Your task to perform on an android device: Clear all items from cart on costco.com. Image 0: 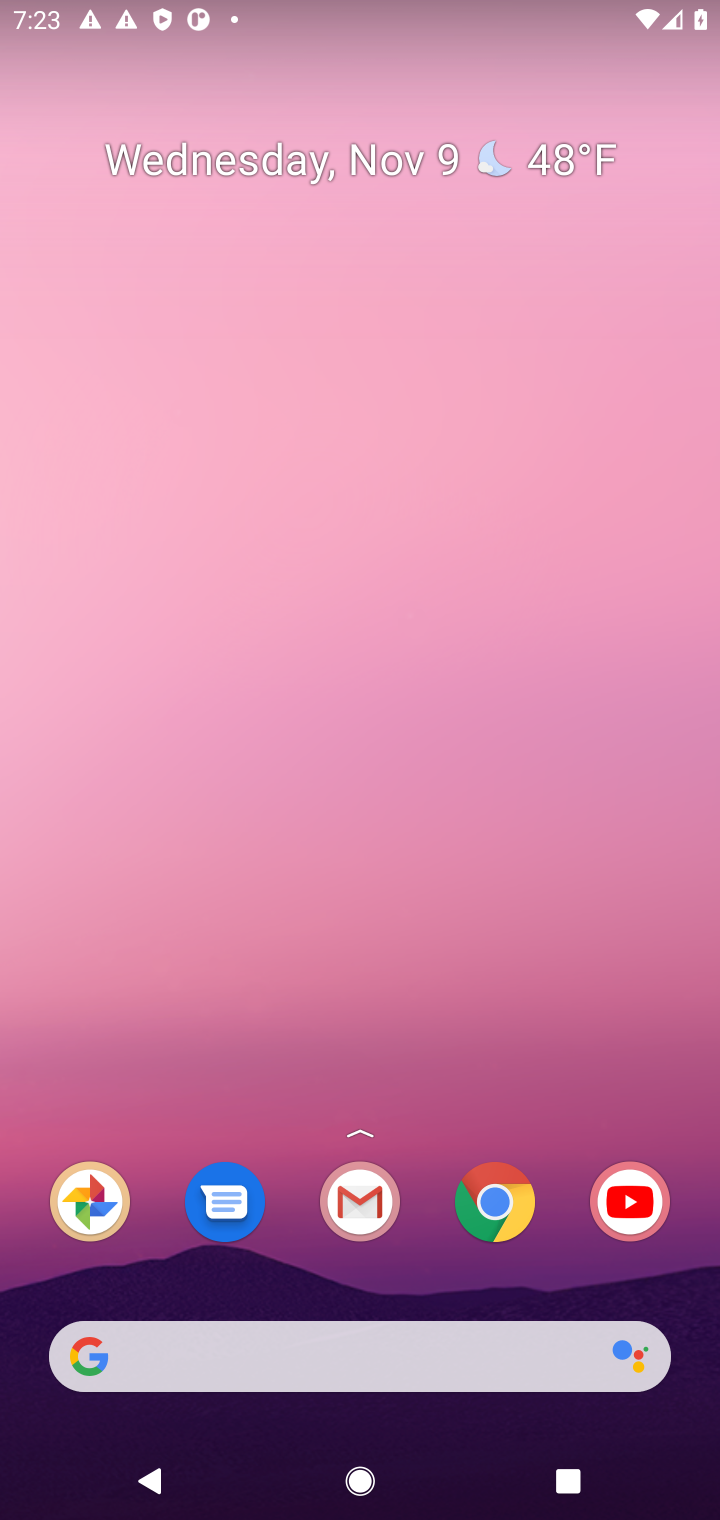
Step 0: click (508, 1209)
Your task to perform on an android device: Clear all items from cart on costco.com. Image 1: 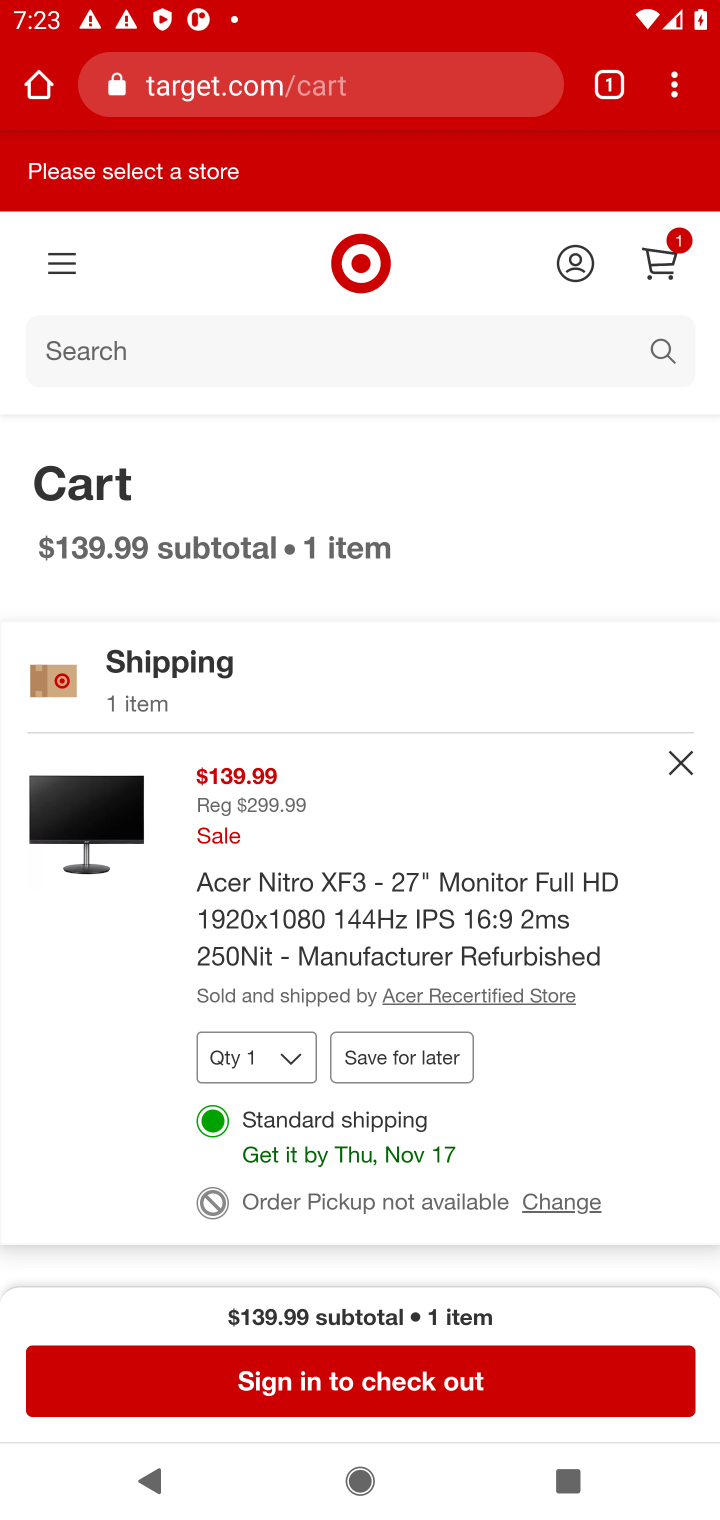
Step 1: click (426, 91)
Your task to perform on an android device: Clear all items from cart on costco.com. Image 2: 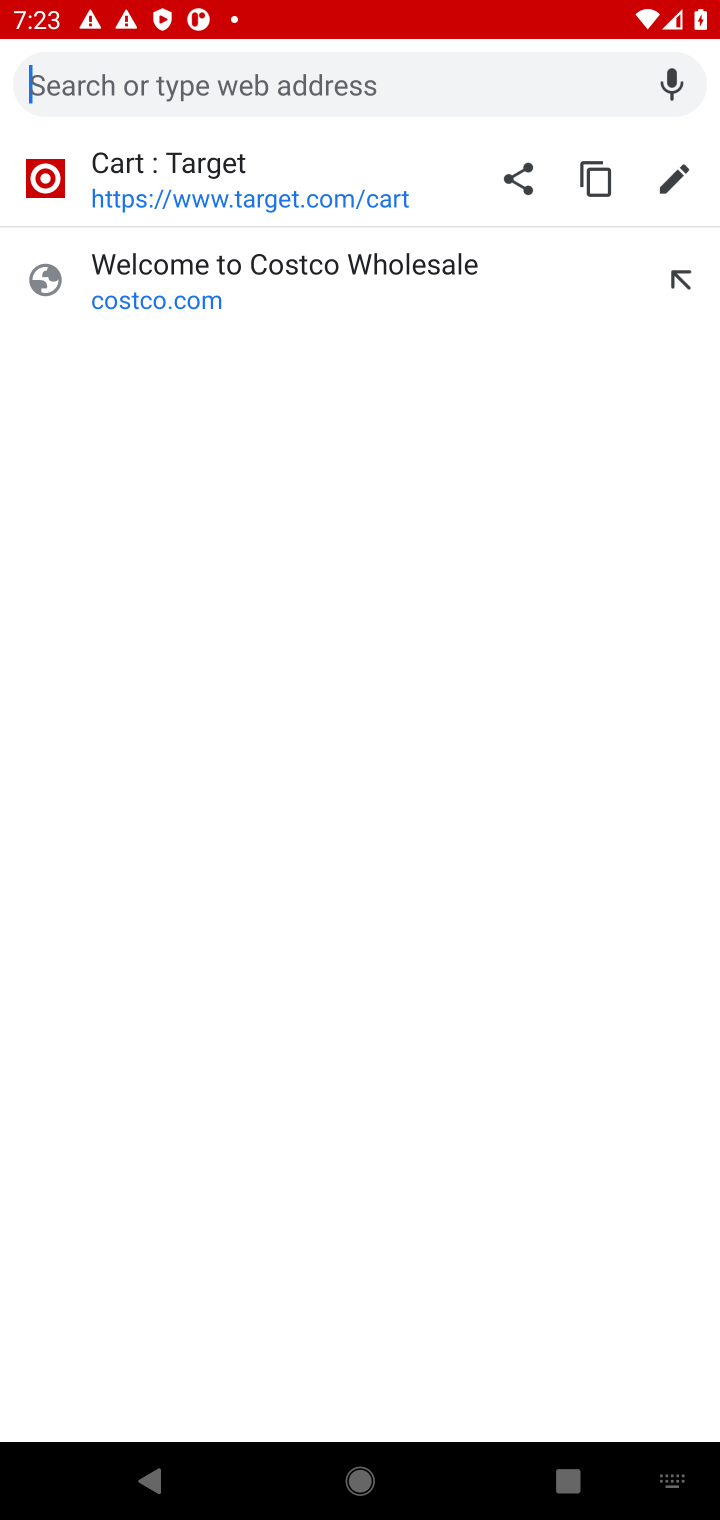
Step 2: type " costco.com"
Your task to perform on an android device: Clear all items from cart on costco.com. Image 3: 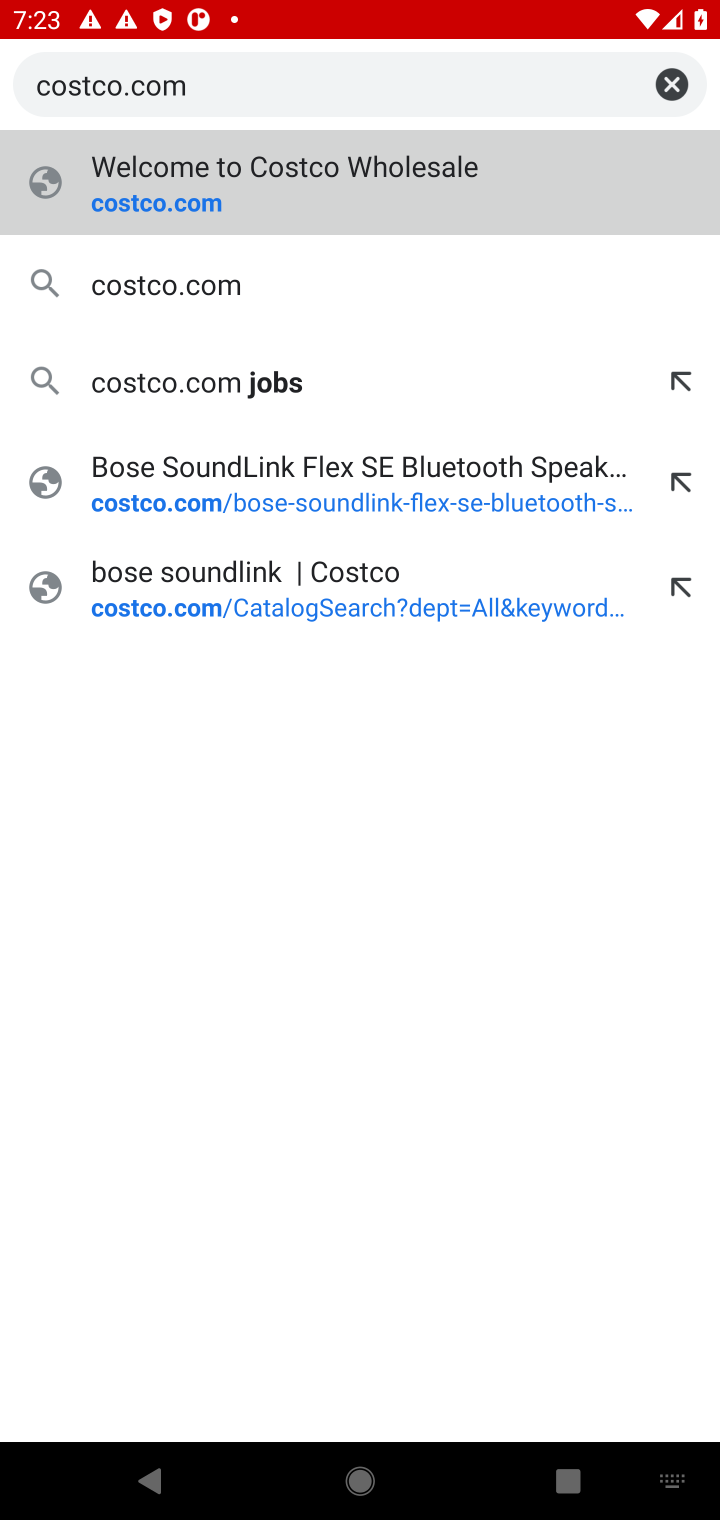
Step 3: press enter
Your task to perform on an android device: Clear all items from cart on costco.com. Image 4: 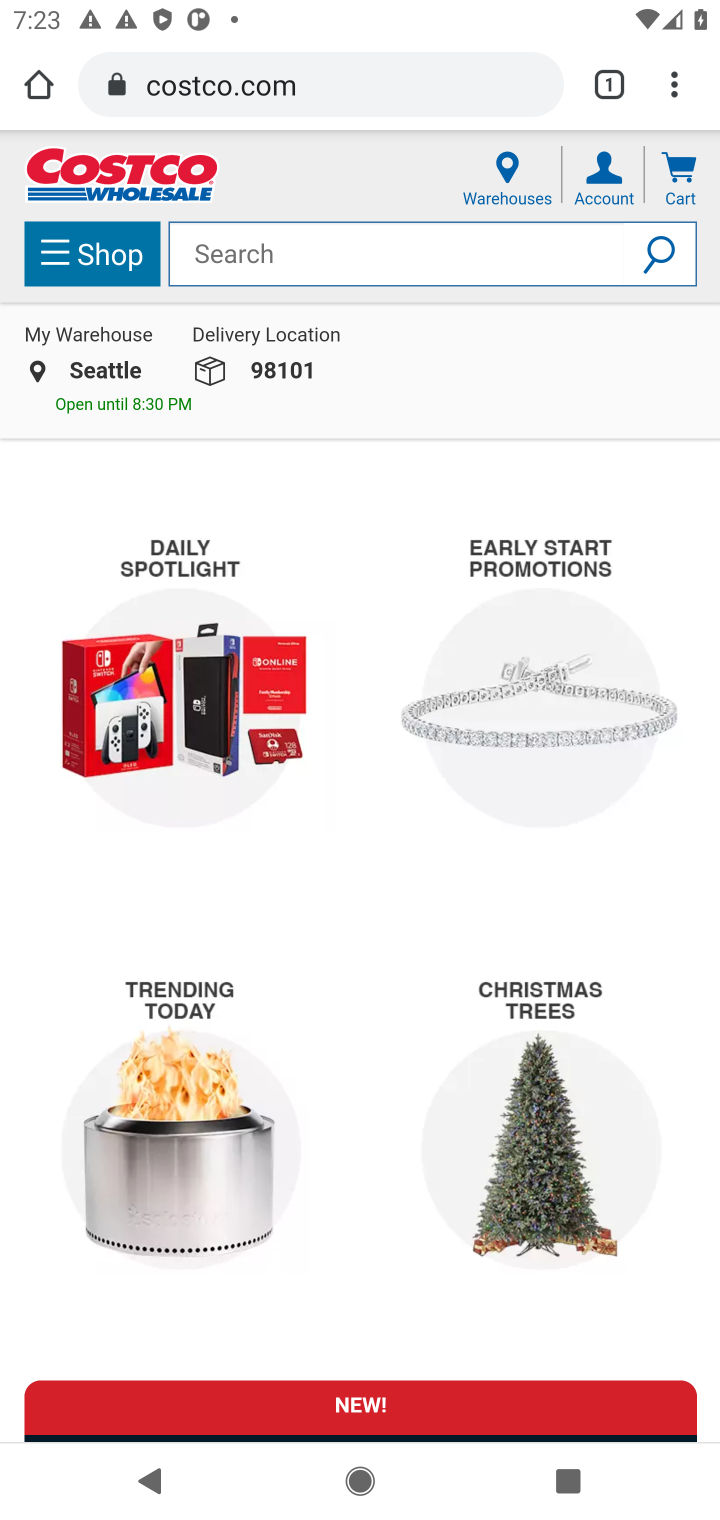
Step 4: click (689, 156)
Your task to perform on an android device: Clear all items from cart on costco.com. Image 5: 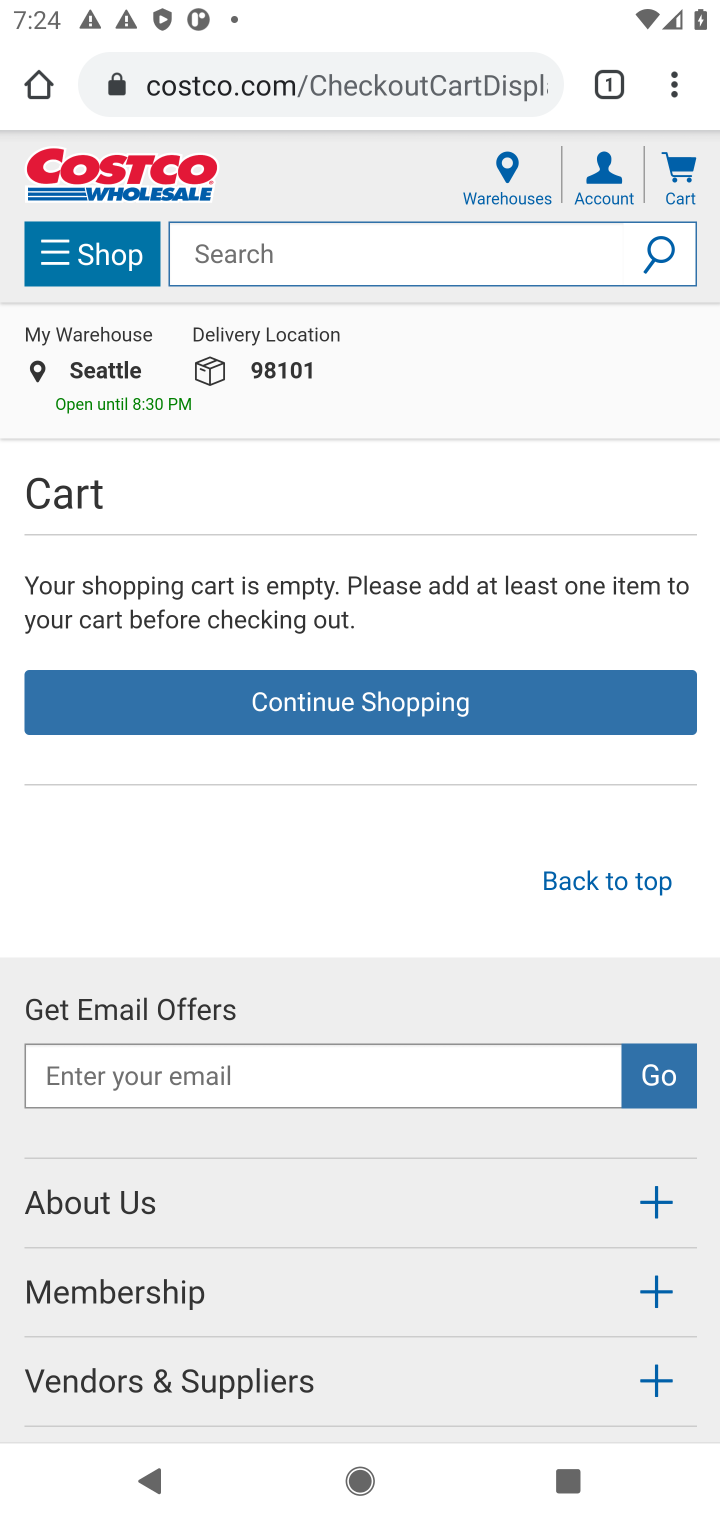
Step 5: click (675, 161)
Your task to perform on an android device: Clear all items from cart on costco.com. Image 6: 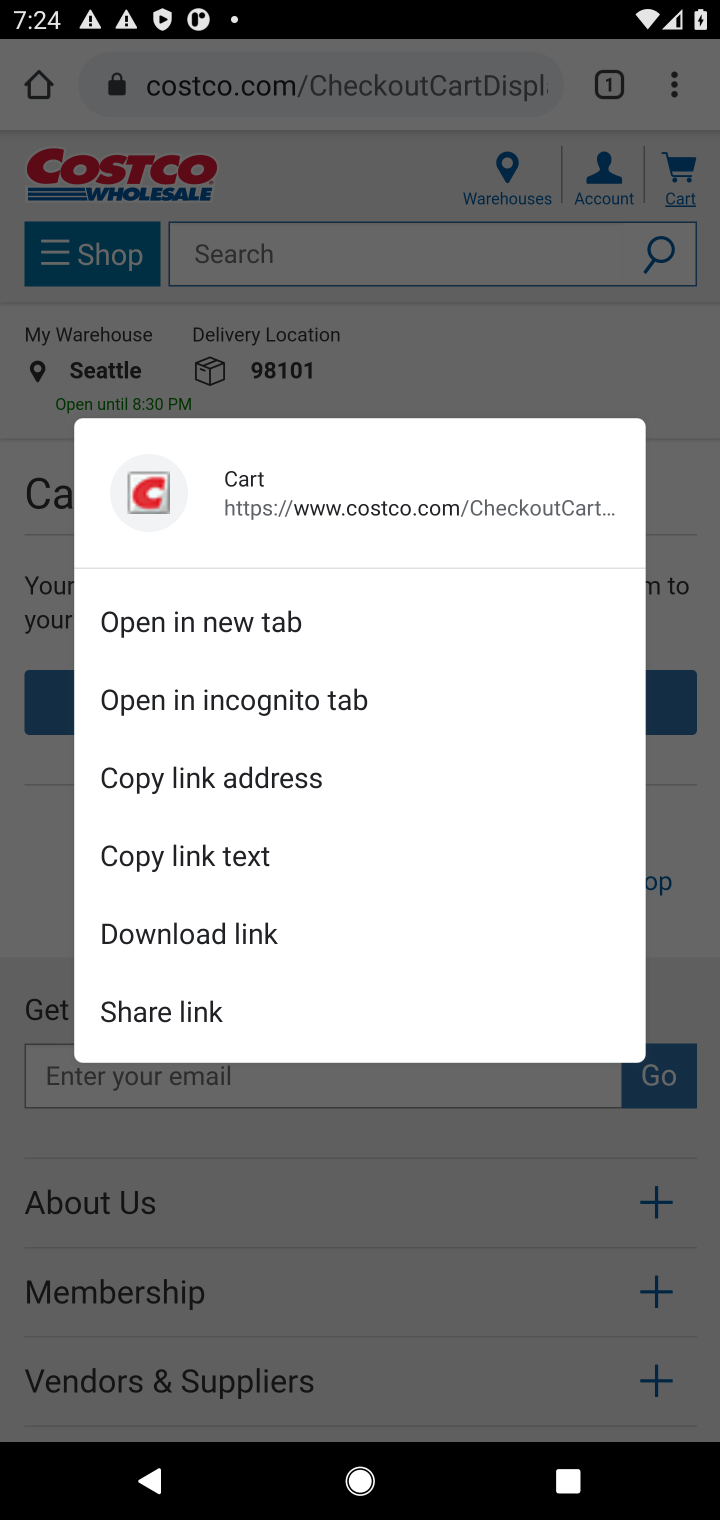
Step 6: click (680, 180)
Your task to perform on an android device: Clear all items from cart on costco.com. Image 7: 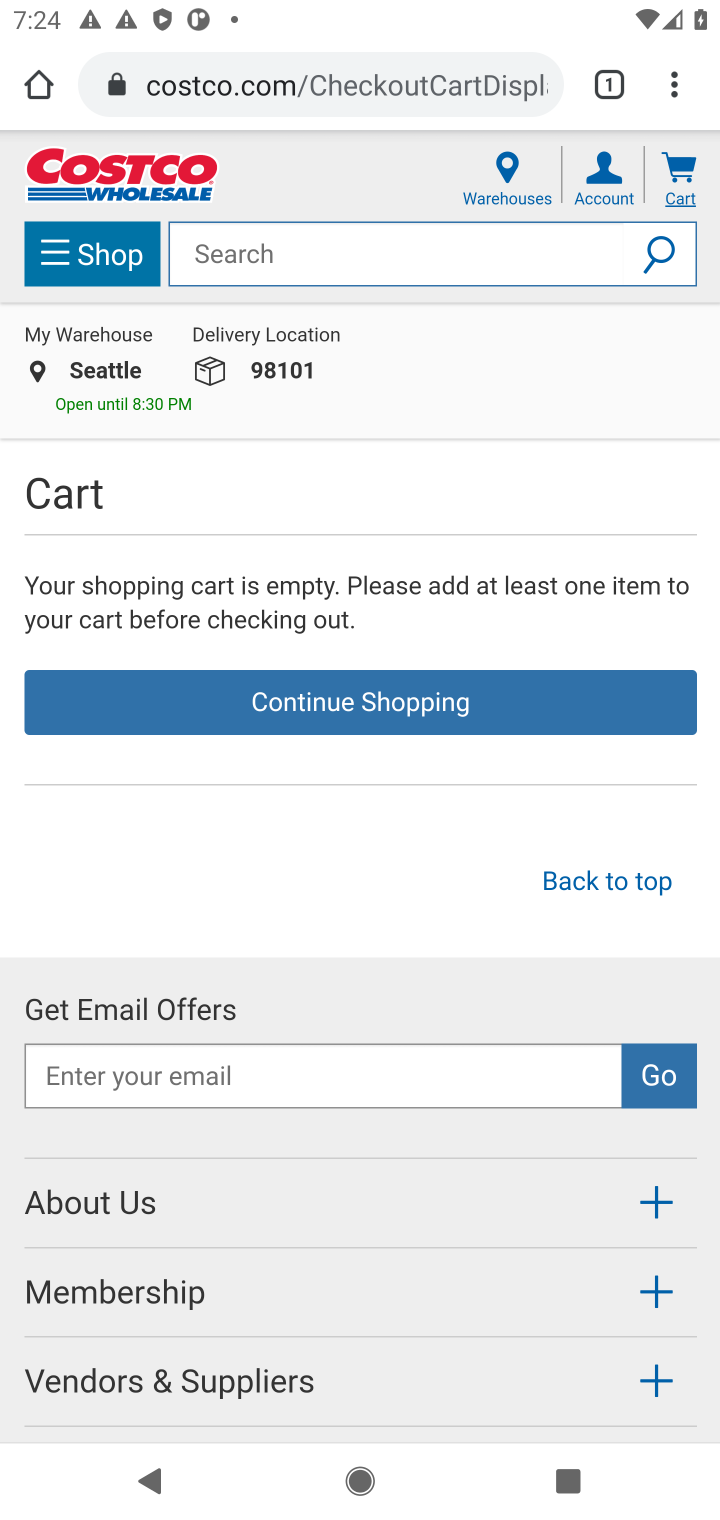
Step 7: click (676, 157)
Your task to perform on an android device: Clear all items from cart on costco.com. Image 8: 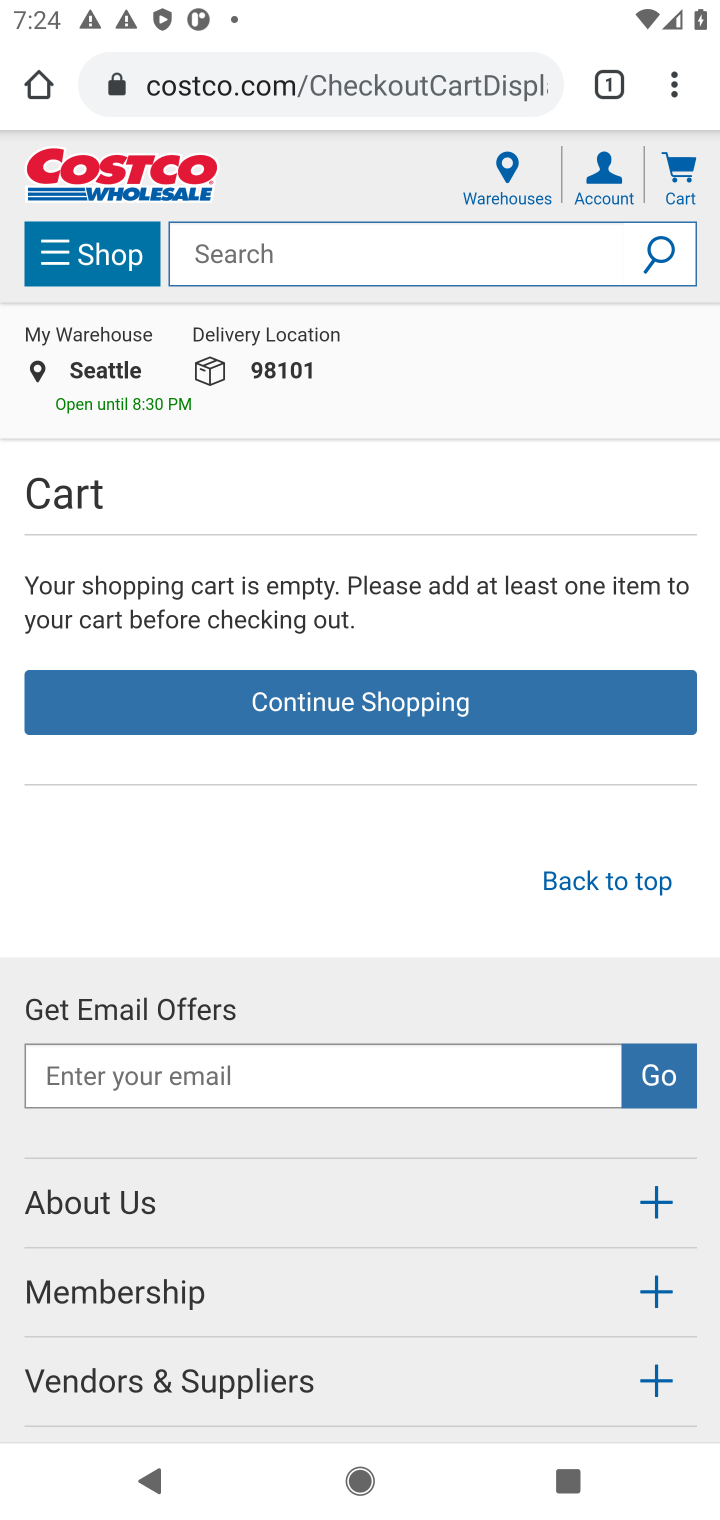
Step 8: task complete